Your task to perform on an android device: What's the weather going to be this weekend? Image 0: 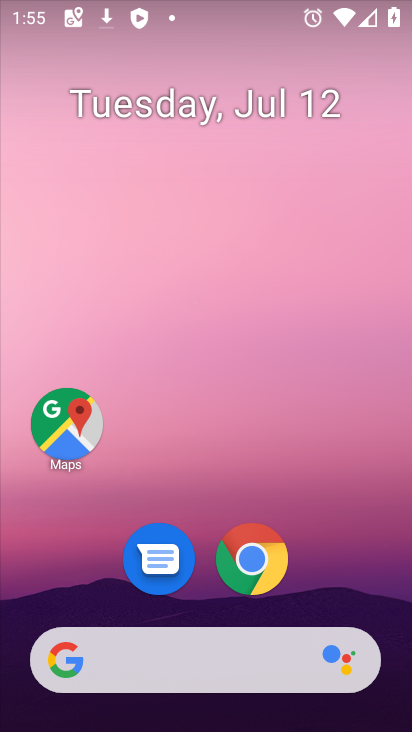
Step 0: click (238, 661)
Your task to perform on an android device: What's the weather going to be this weekend? Image 1: 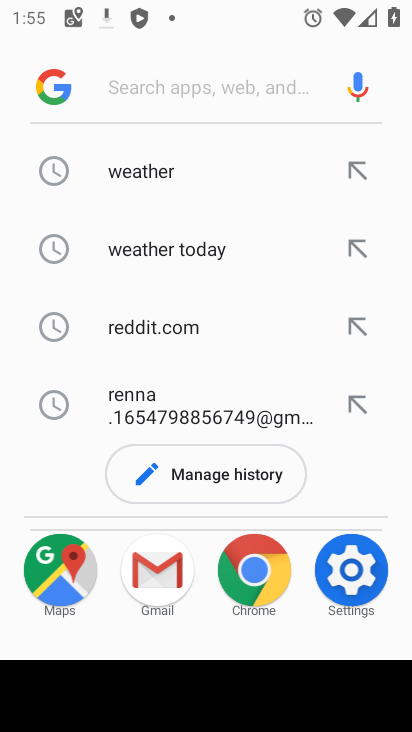
Step 1: click (146, 166)
Your task to perform on an android device: What's the weather going to be this weekend? Image 2: 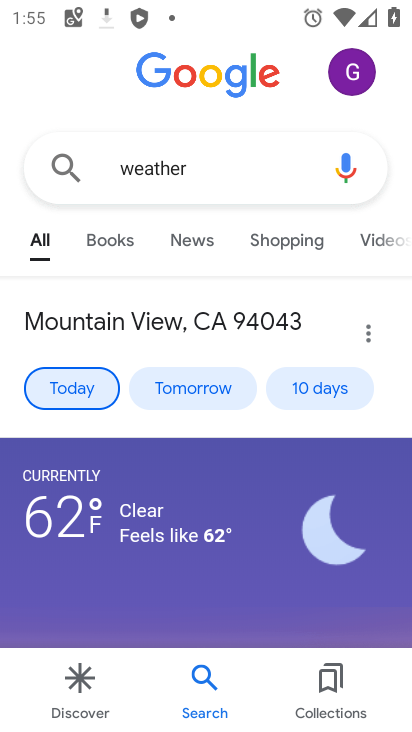
Step 2: click (323, 386)
Your task to perform on an android device: What's the weather going to be this weekend? Image 3: 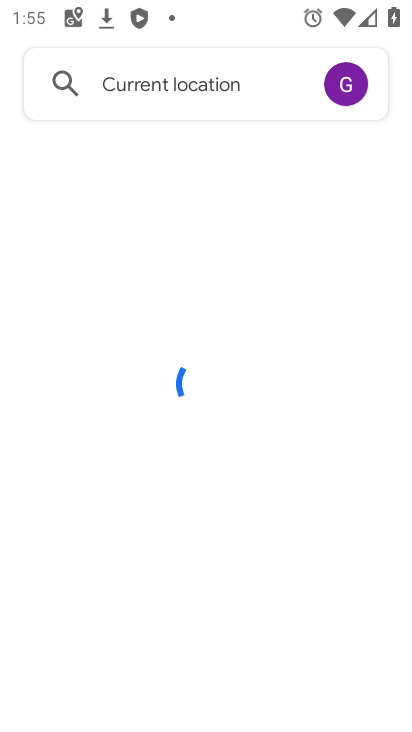
Step 3: task complete